Your task to perform on an android device: Go to CNN.com Image 0: 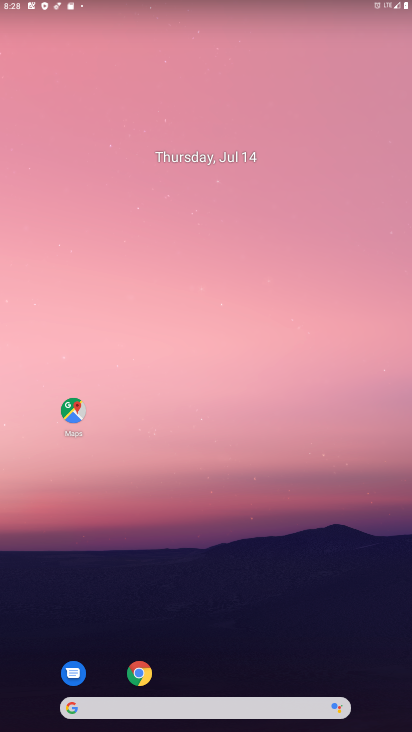
Step 0: click (139, 677)
Your task to perform on an android device: Go to CNN.com Image 1: 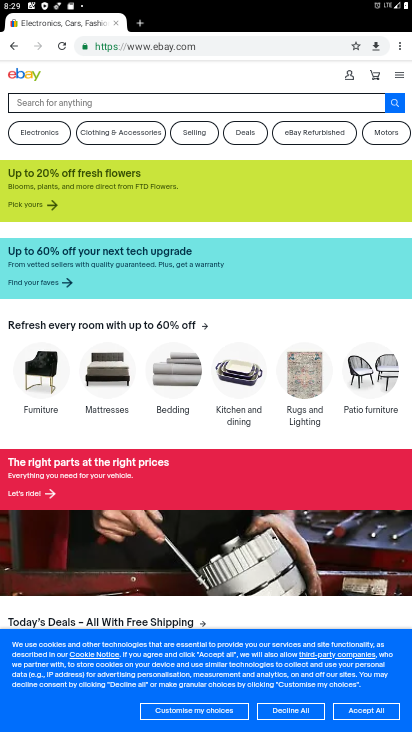
Step 1: click (238, 45)
Your task to perform on an android device: Go to CNN.com Image 2: 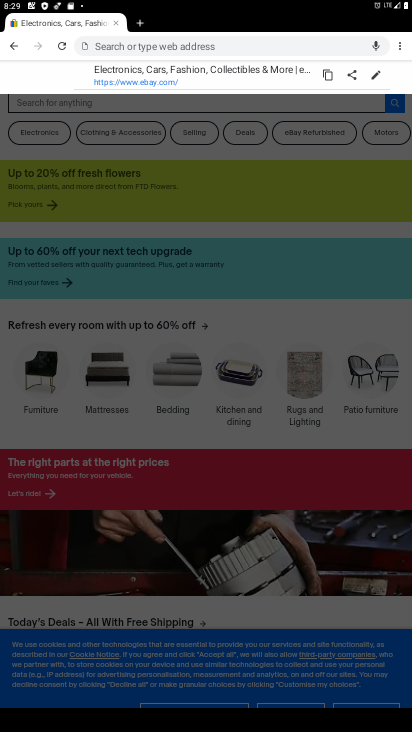
Step 2: type "CNN.com"
Your task to perform on an android device: Go to CNN.com Image 3: 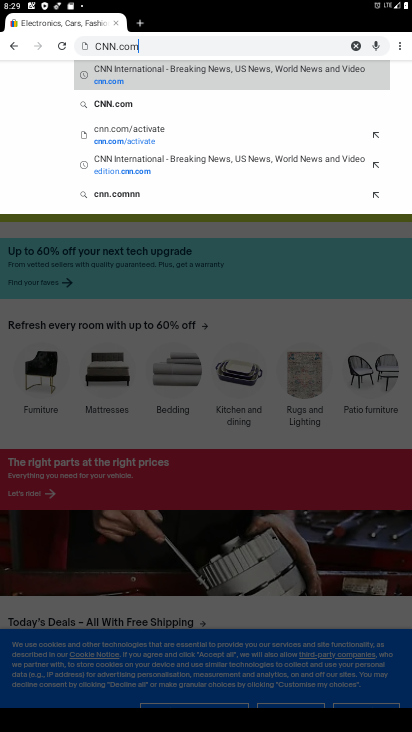
Step 3: click (131, 98)
Your task to perform on an android device: Go to CNN.com Image 4: 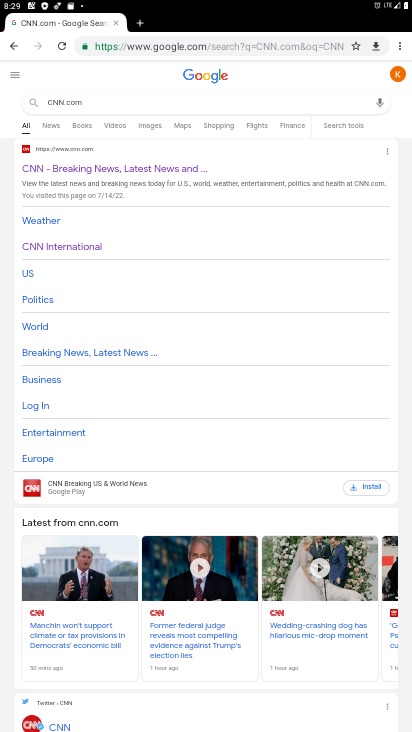
Step 4: click (165, 161)
Your task to perform on an android device: Go to CNN.com Image 5: 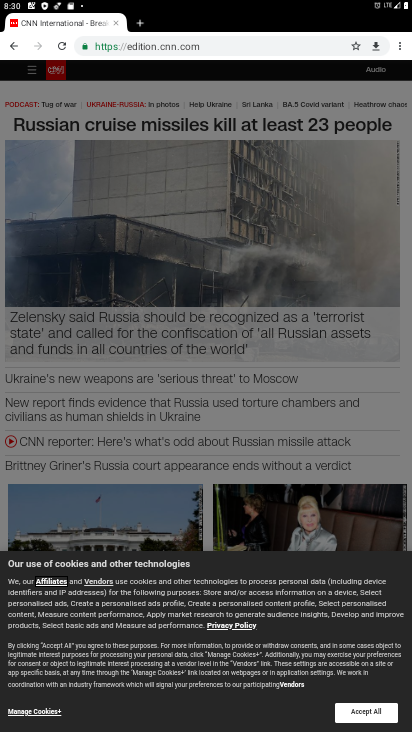
Step 5: task complete